Your task to perform on an android device: toggle sleep mode Image 0: 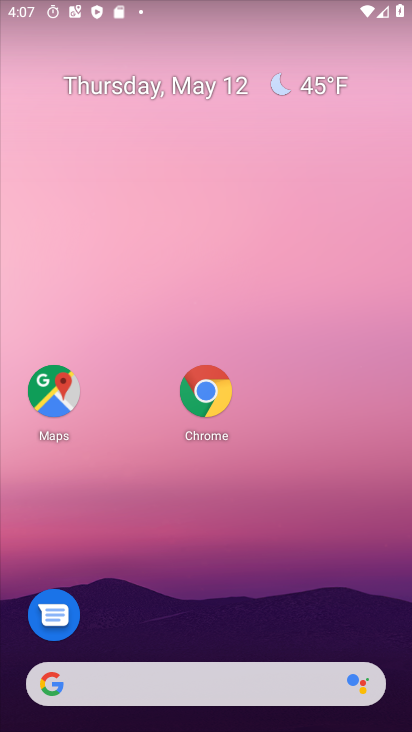
Step 0: drag from (255, 605) to (240, 56)
Your task to perform on an android device: toggle sleep mode Image 1: 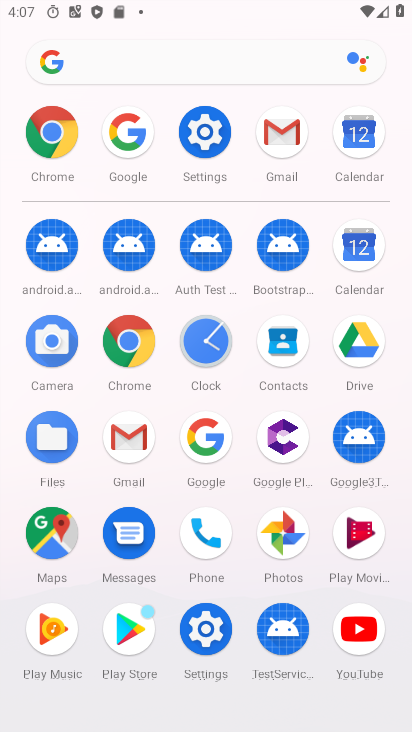
Step 1: click (215, 125)
Your task to perform on an android device: toggle sleep mode Image 2: 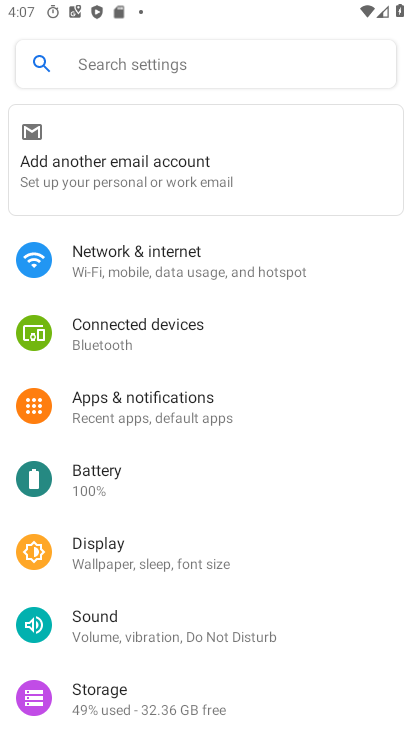
Step 2: click (162, 547)
Your task to perform on an android device: toggle sleep mode Image 3: 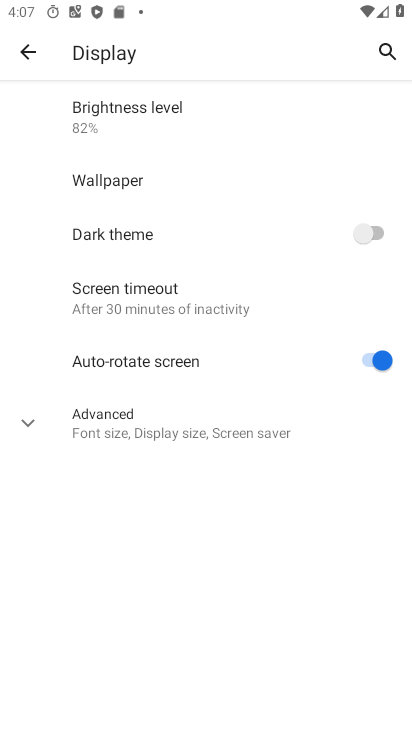
Step 3: drag from (217, 503) to (173, 163)
Your task to perform on an android device: toggle sleep mode Image 4: 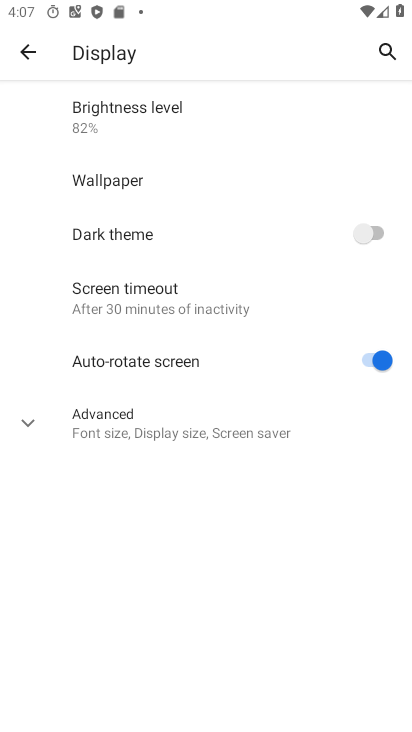
Step 4: click (180, 302)
Your task to perform on an android device: toggle sleep mode Image 5: 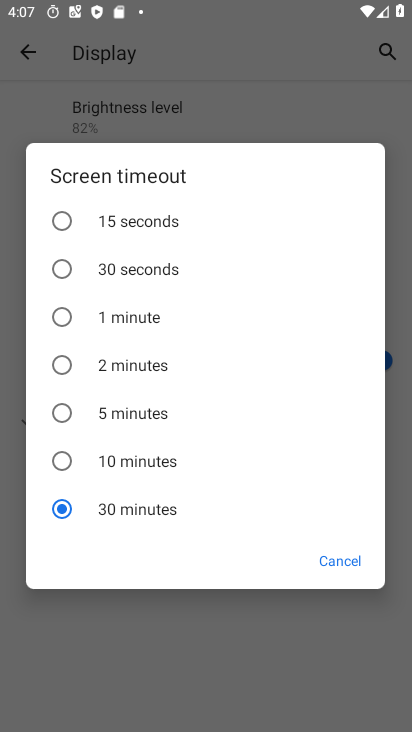
Step 5: click (68, 464)
Your task to perform on an android device: toggle sleep mode Image 6: 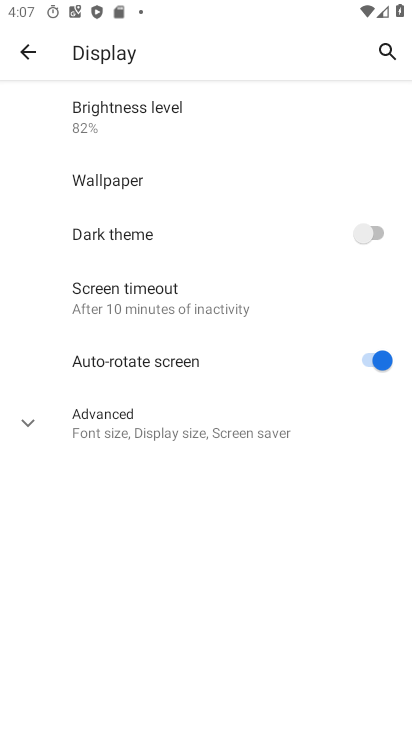
Step 6: task complete